Your task to perform on an android device: Go to internet settings Image 0: 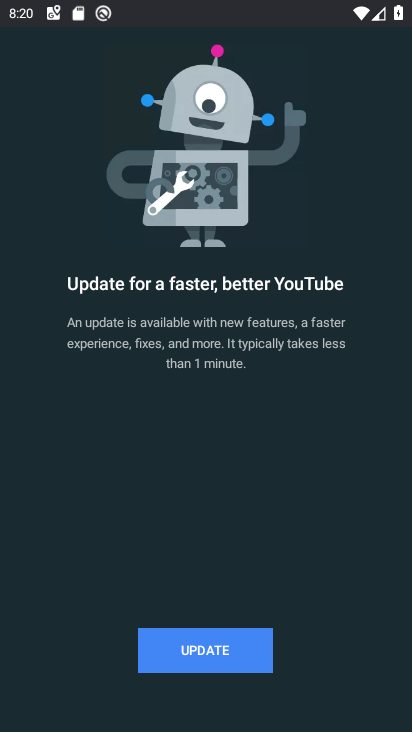
Step 0: press back button
Your task to perform on an android device: Go to internet settings Image 1: 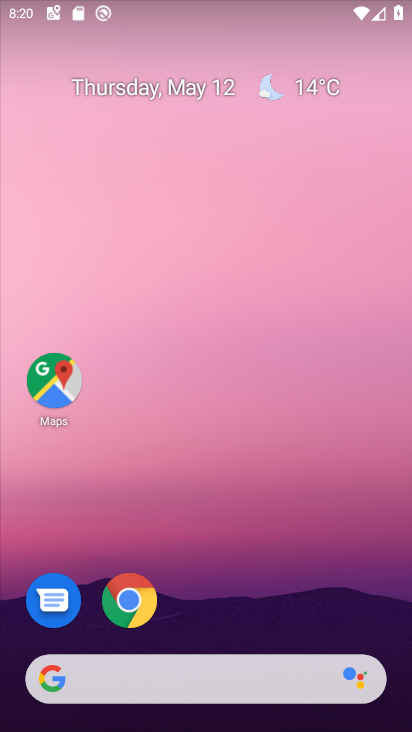
Step 1: drag from (348, 602) to (90, 111)
Your task to perform on an android device: Go to internet settings Image 2: 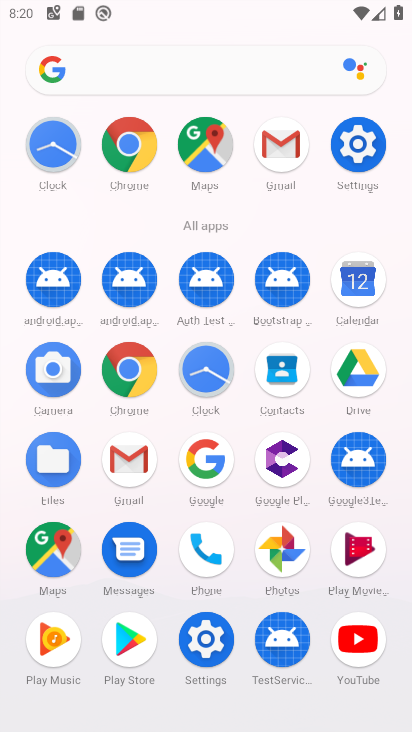
Step 2: click (351, 152)
Your task to perform on an android device: Go to internet settings Image 3: 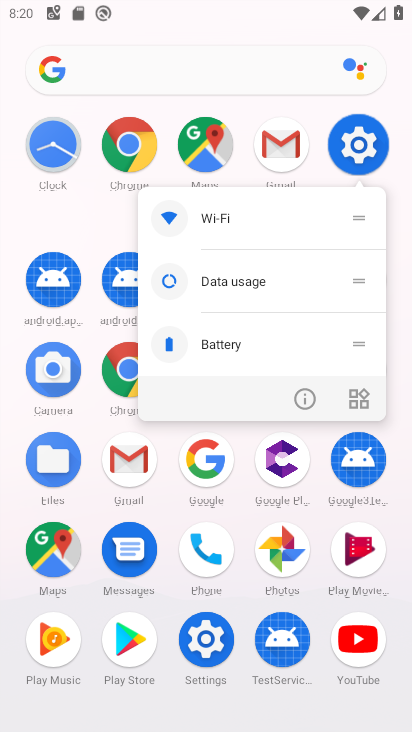
Step 3: click (355, 151)
Your task to perform on an android device: Go to internet settings Image 4: 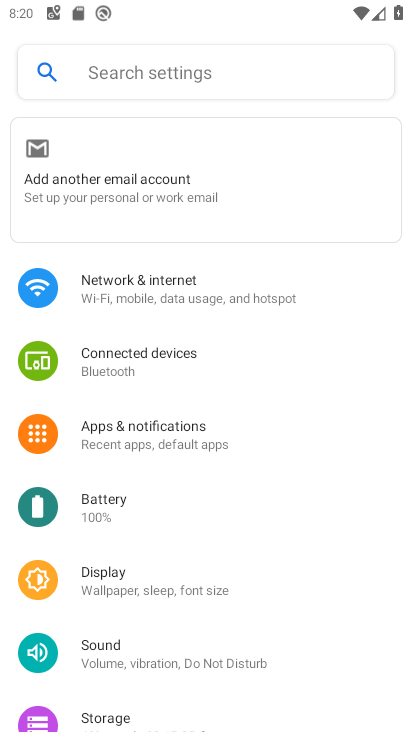
Step 4: click (142, 289)
Your task to perform on an android device: Go to internet settings Image 5: 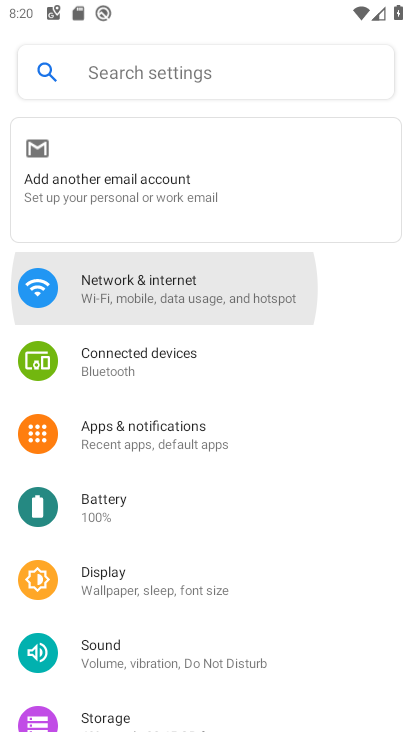
Step 5: click (142, 290)
Your task to perform on an android device: Go to internet settings Image 6: 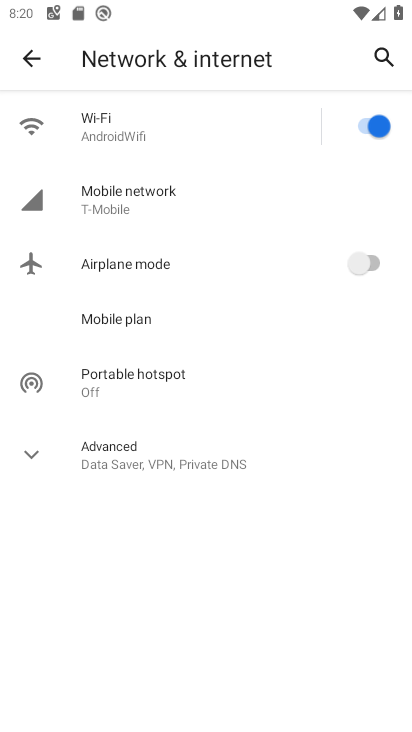
Step 6: task complete